Your task to perform on an android device: turn on bluetooth scan Image 0: 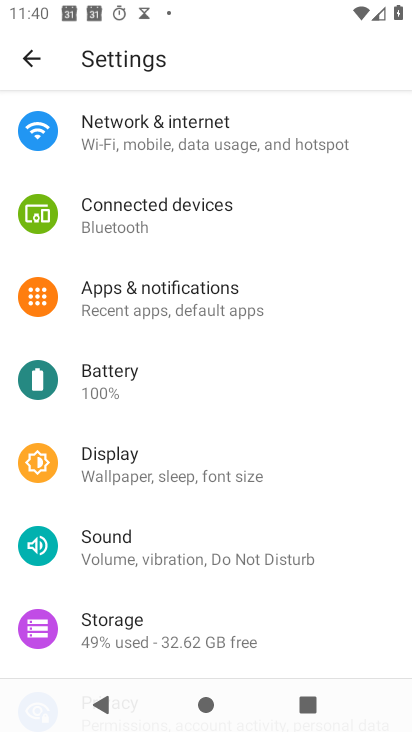
Step 0: drag from (145, 593) to (172, 320)
Your task to perform on an android device: turn on bluetooth scan Image 1: 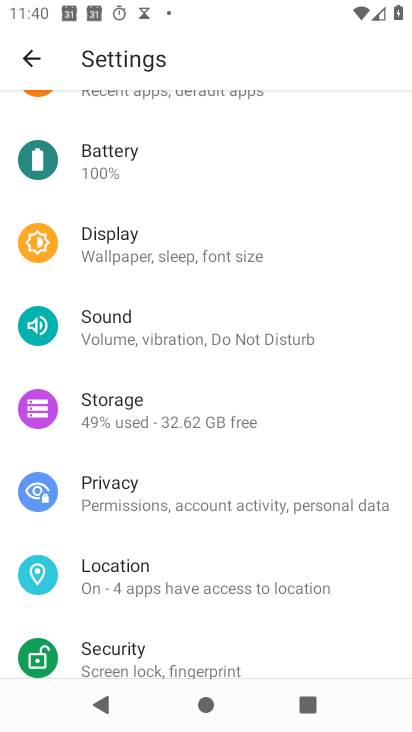
Step 1: click (148, 633)
Your task to perform on an android device: turn on bluetooth scan Image 2: 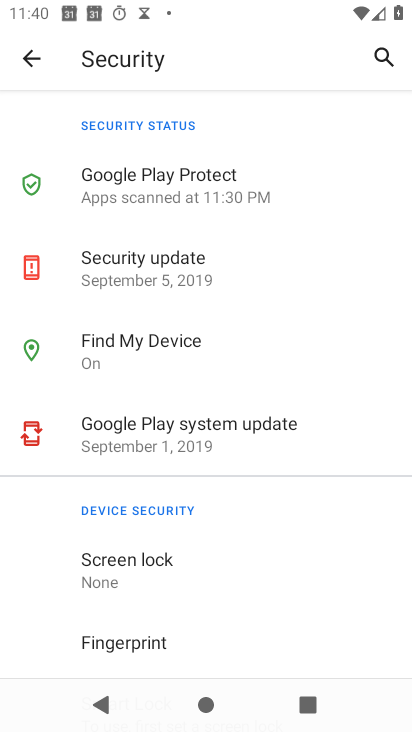
Step 2: click (25, 61)
Your task to perform on an android device: turn on bluetooth scan Image 3: 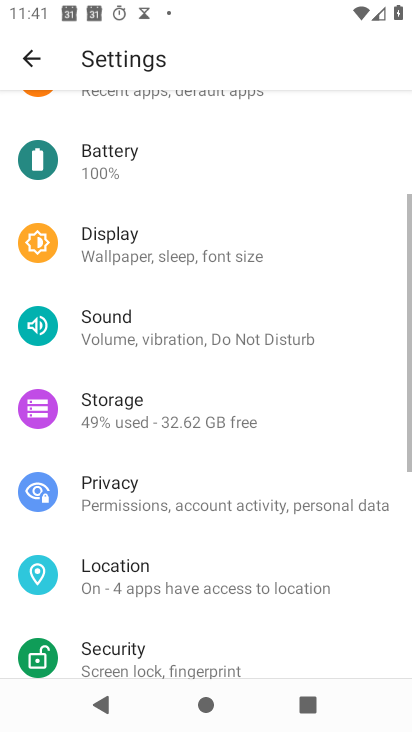
Step 3: click (152, 570)
Your task to perform on an android device: turn on bluetooth scan Image 4: 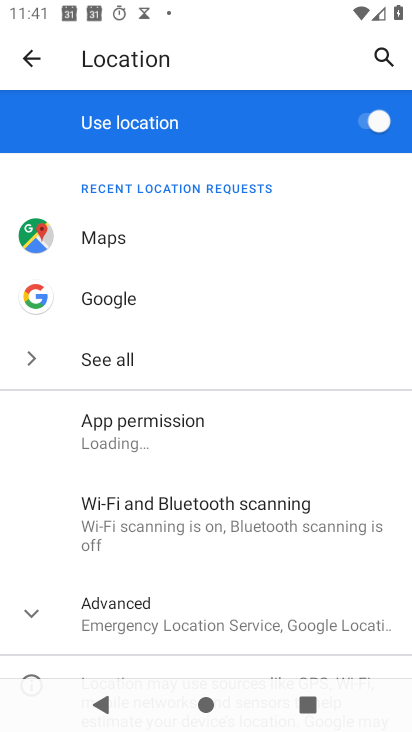
Step 4: click (195, 532)
Your task to perform on an android device: turn on bluetooth scan Image 5: 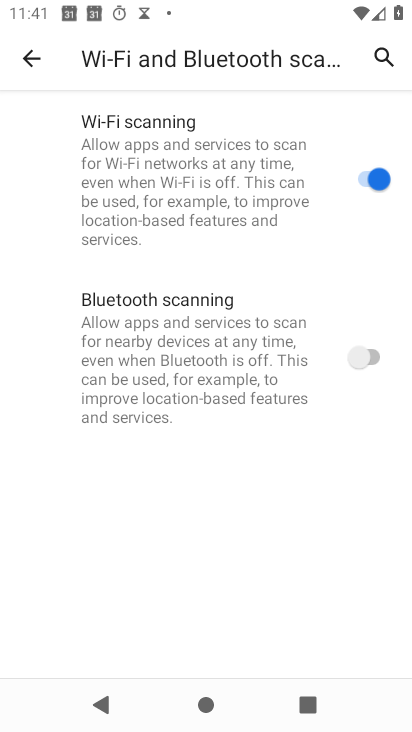
Step 5: click (385, 357)
Your task to perform on an android device: turn on bluetooth scan Image 6: 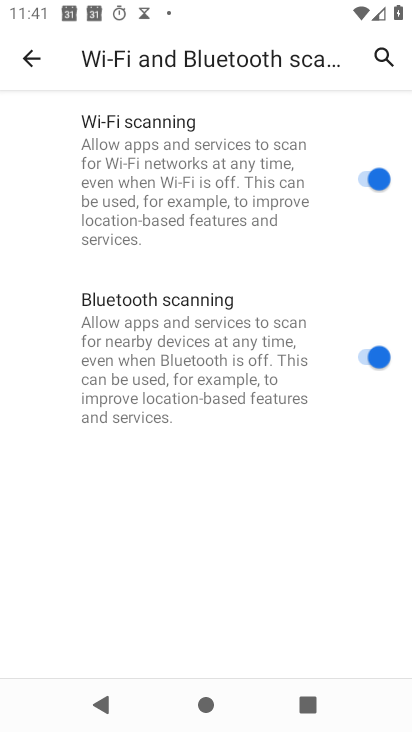
Step 6: task complete